Your task to perform on an android device: Go to eBay Image 0: 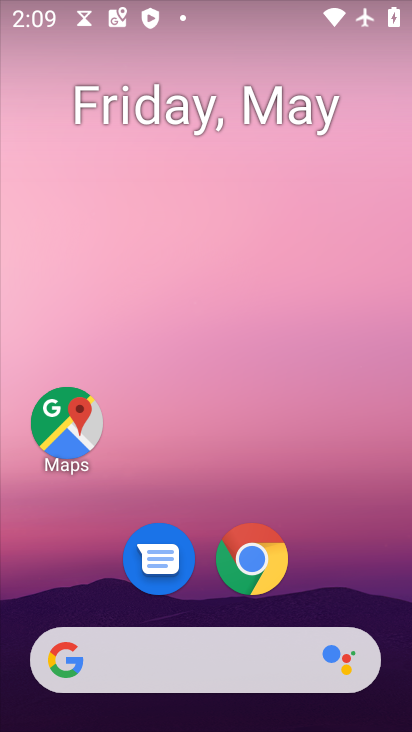
Step 0: click (262, 566)
Your task to perform on an android device: Go to eBay Image 1: 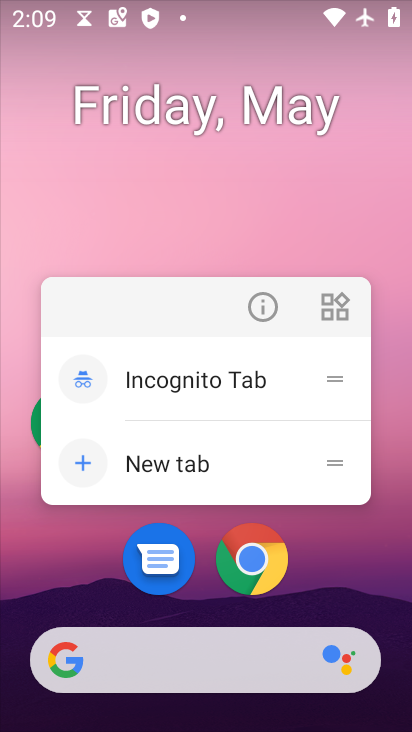
Step 1: click (262, 566)
Your task to perform on an android device: Go to eBay Image 2: 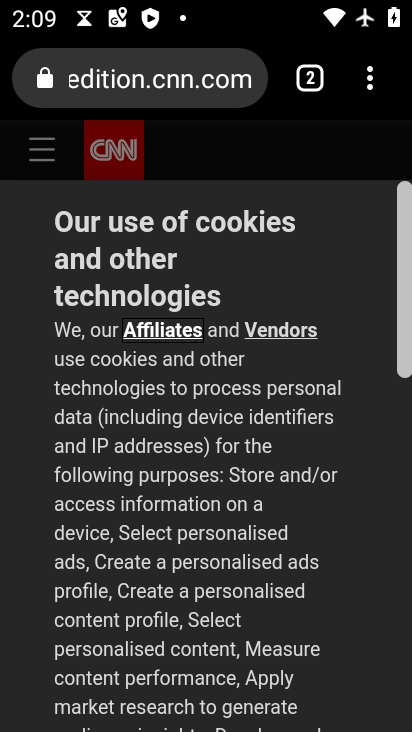
Step 2: click (205, 93)
Your task to perform on an android device: Go to eBay Image 3: 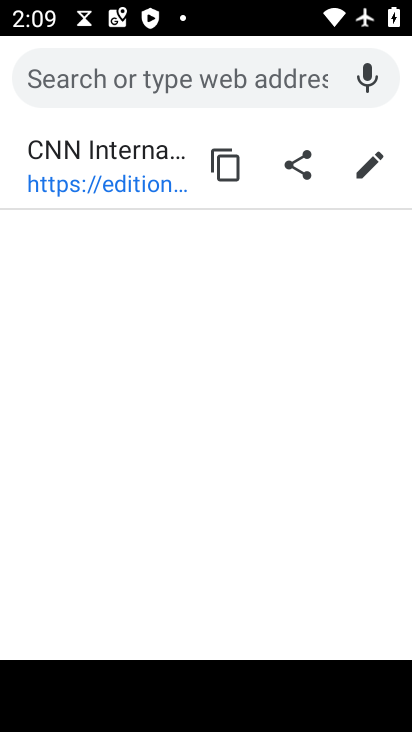
Step 3: type "ebay"
Your task to perform on an android device: Go to eBay Image 4: 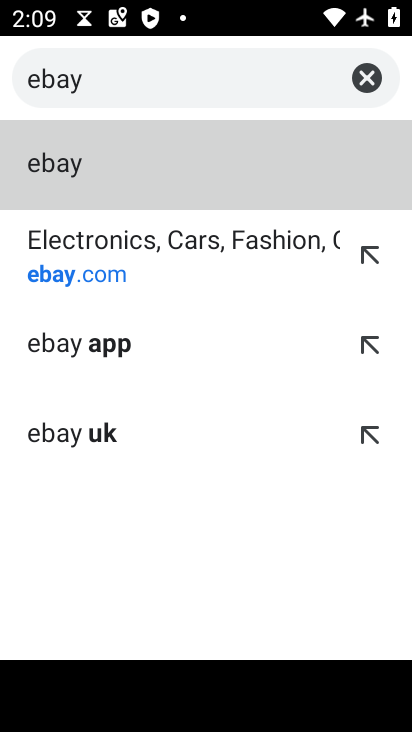
Step 4: click (89, 265)
Your task to perform on an android device: Go to eBay Image 5: 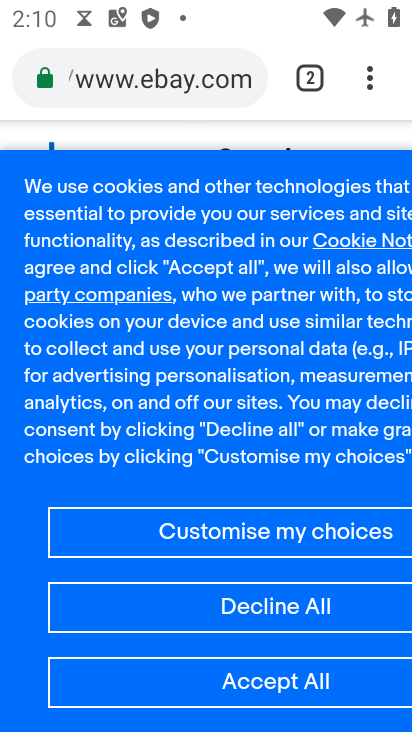
Step 5: task complete